Your task to perform on an android device: change the upload size in google photos Image 0: 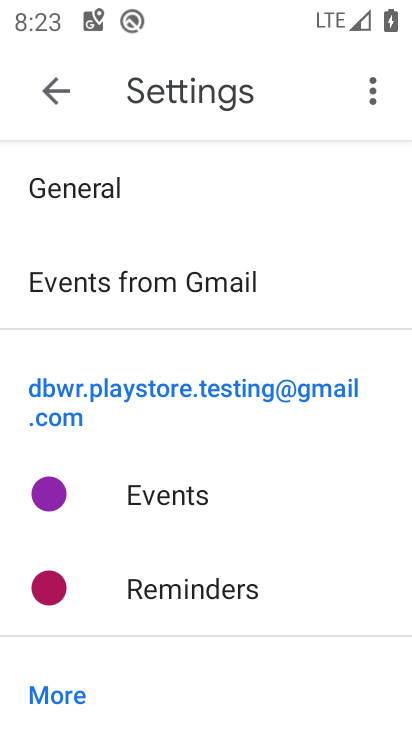
Step 0: press home button
Your task to perform on an android device: change the upload size in google photos Image 1: 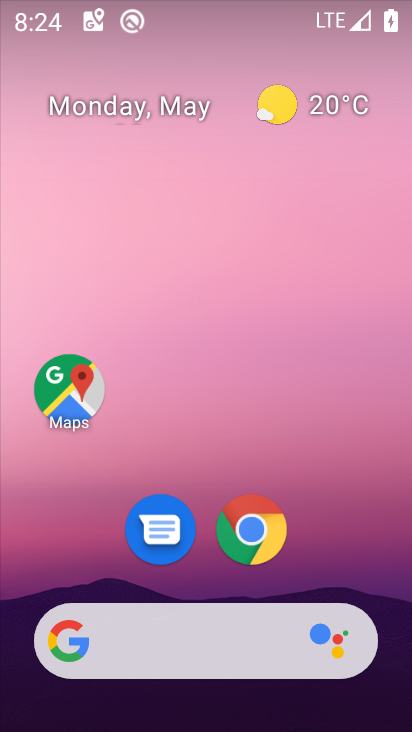
Step 1: drag from (19, 528) to (184, 164)
Your task to perform on an android device: change the upload size in google photos Image 2: 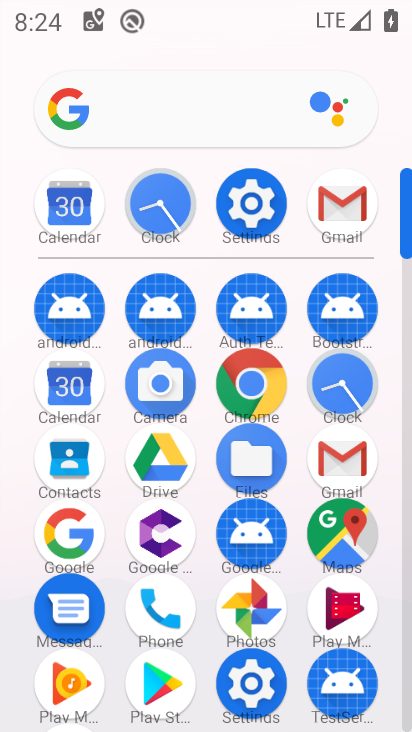
Step 2: click (268, 603)
Your task to perform on an android device: change the upload size in google photos Image 3: 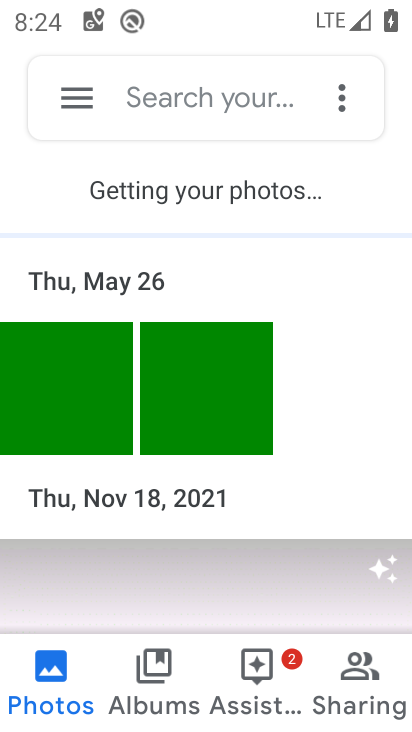
Step 3: click (65, 117)
Your task to perform on an android device: change the upload size in google photos Image 4: 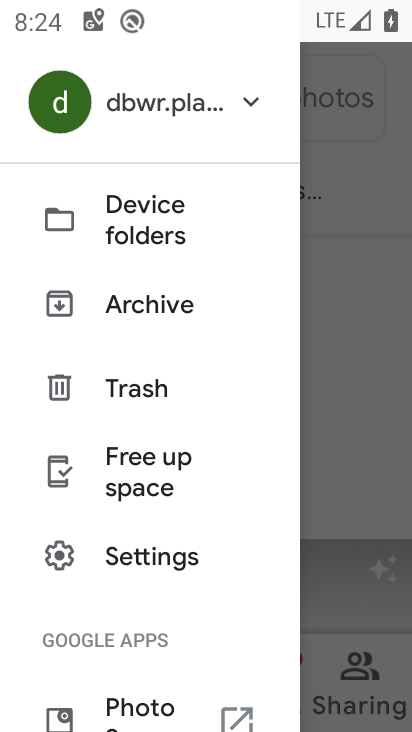
Step 4: drag from (65, 713) to (231, 171)
Your task to perform on an android device: change the upload size in google photos Image 5: 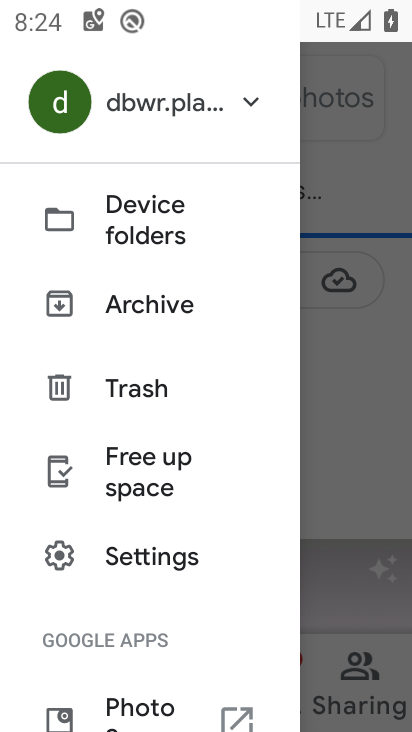
Step 5: click (133, 552)
Your task to perform on an android device: change the upload size in google photos Image 6: 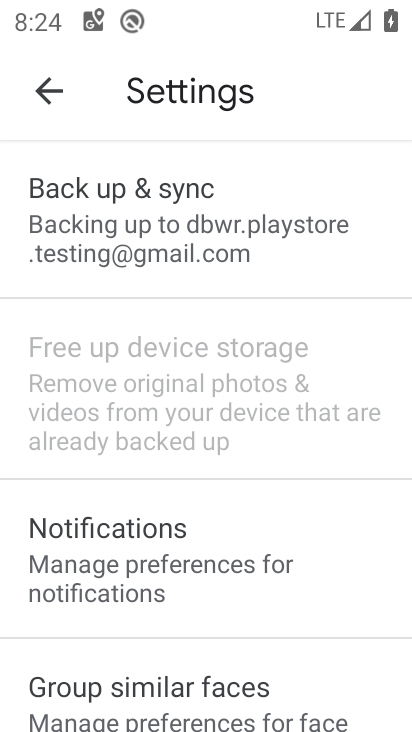
Step 6: click (167, 263)
Your task to perform on an android device: change the upload size in google photos Image 7: 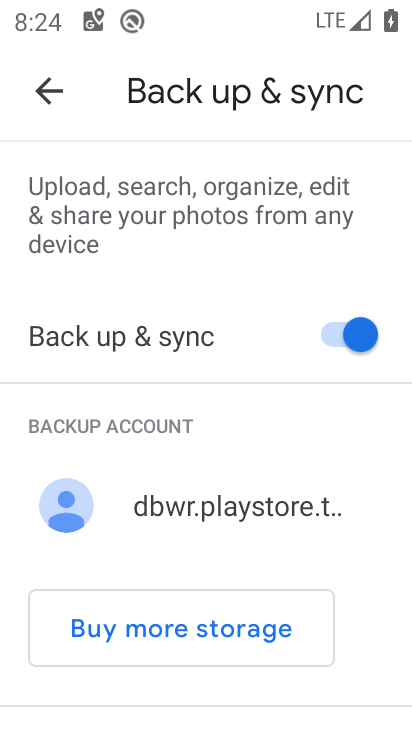
Step 7: drag from (9, 534) to (138, 206)
Your task to perform on an android device: change the upload size in google photos Image 8: 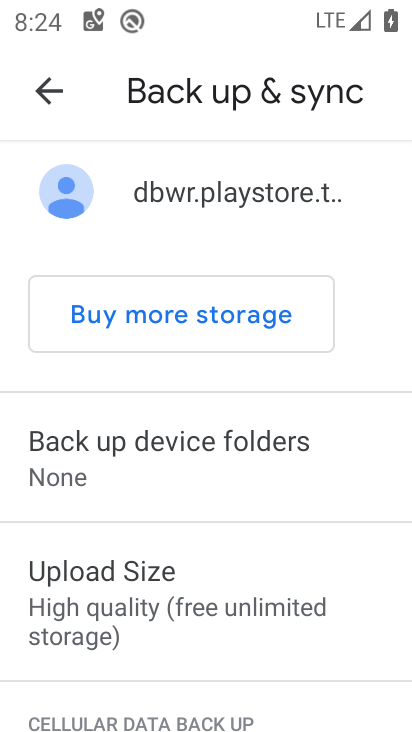
Step 8: click (84, 636)
Your task to perform on an android device: change the upload size in google photos Image 9: 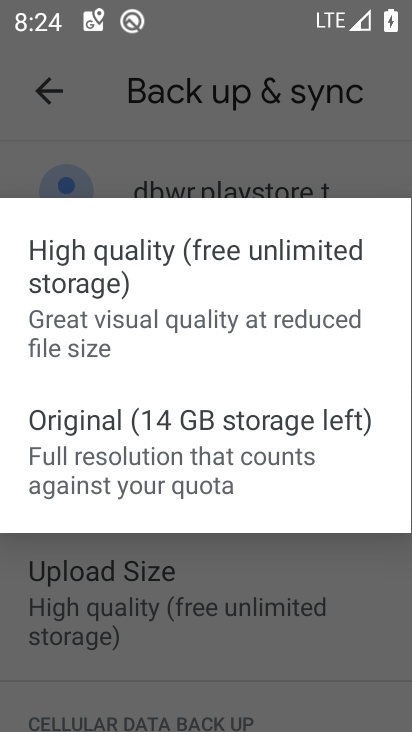
Step 9: click (112, 461)
Your task to perform on an android device: change the upload size in google photos Image 10: 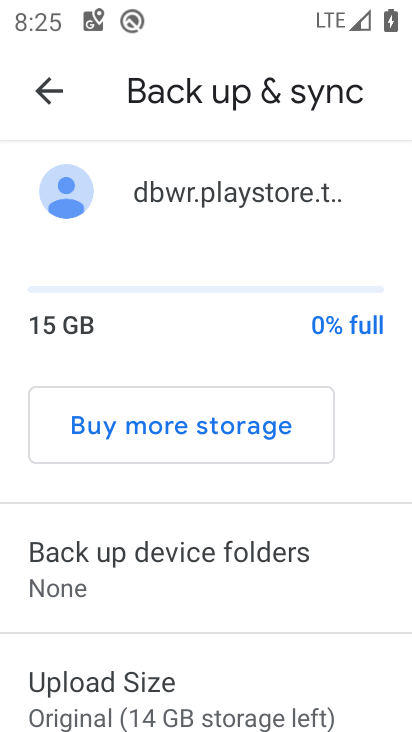
Step 10: task complete